Your task to perform on an android device: Go to display settings Image 0: 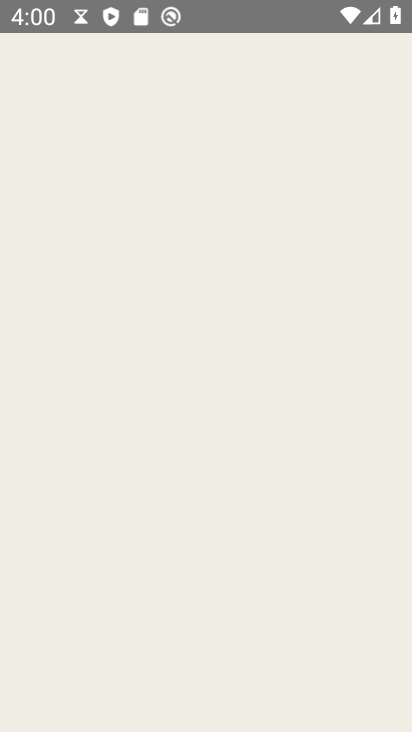
Step 0: click (209, 404)
Your task to perform on an android device: Go to display settings Image 1: 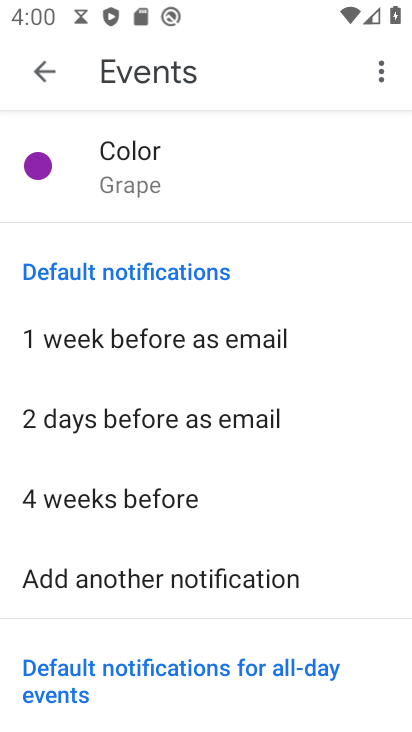
Step 1: press home button
Your task to perform on an android device: Go to display settings Image 2: 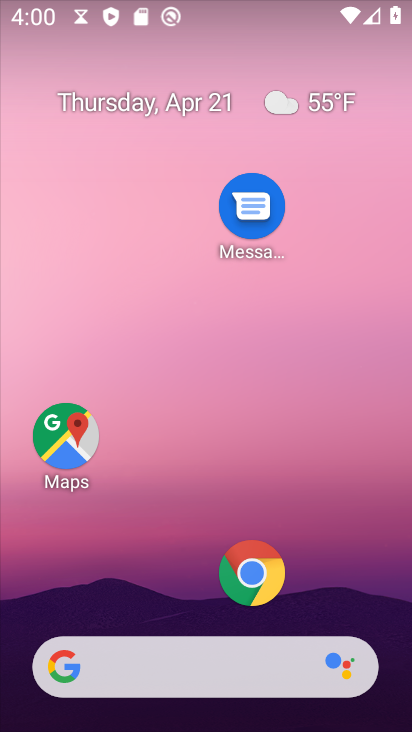
Step 2: drag from (260, 508) to (303, 87)
Your task to perform on an android device: Go to display settings Image 3: 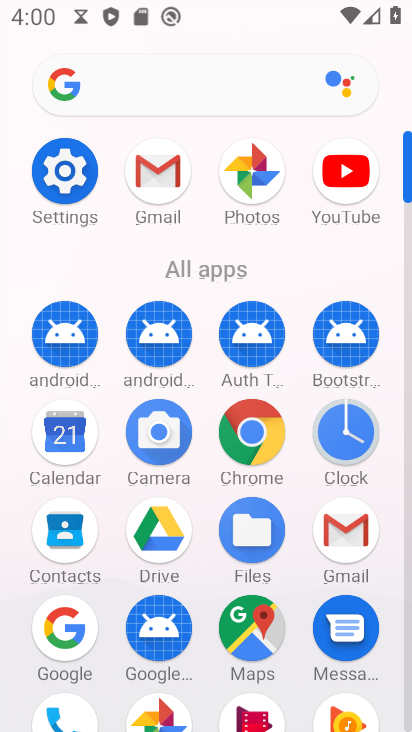
Step 3: click (65, 176)
Your task to perform on an android device: Go to display settings Image 4: 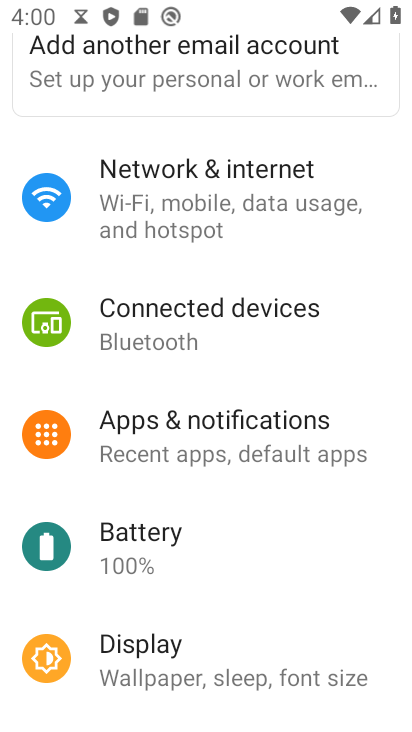
Step 4: click (140, 645)
Your task to perform on an android device: Go to display settings Image 5: 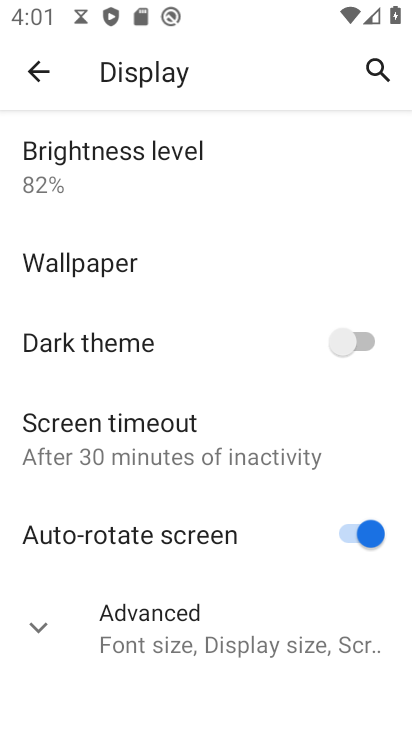
Step 5: task complete